Your task to perform on an android device: Clear all items from cart on newegg.com. Search for bose quietcomfort 35 on newegg.com, select the first entry, add it to the cart, then select checkout. Image 0: 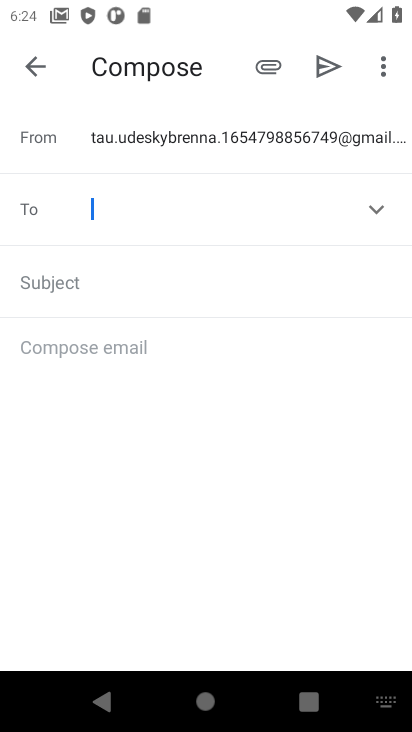
Step 0: press home button
Your task to perform on an android device: Clear all items from cart on newegg.com. Search for bose quietcomfort 35 on newegg.com, select the first entry, add it to the cart, then select checkout. Image 1: 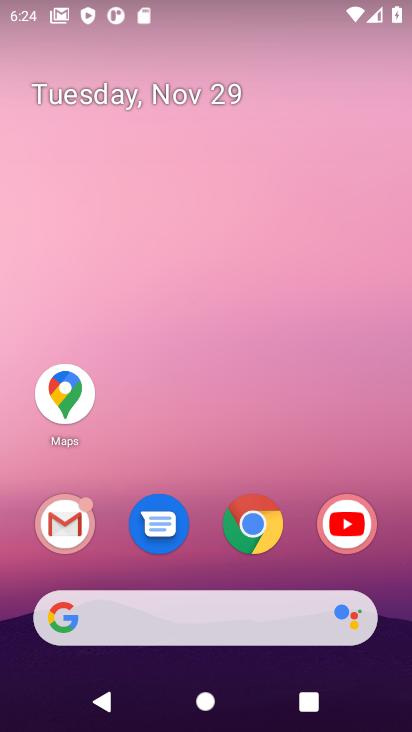
Step 1: click (256, 519)
Your task to perform on an android device: Clear all items from cart on newegg.com. Search for bose quietcomfort 35 on newegg.com, select the first entry, add it to the cart, then select checkout. Image 2: 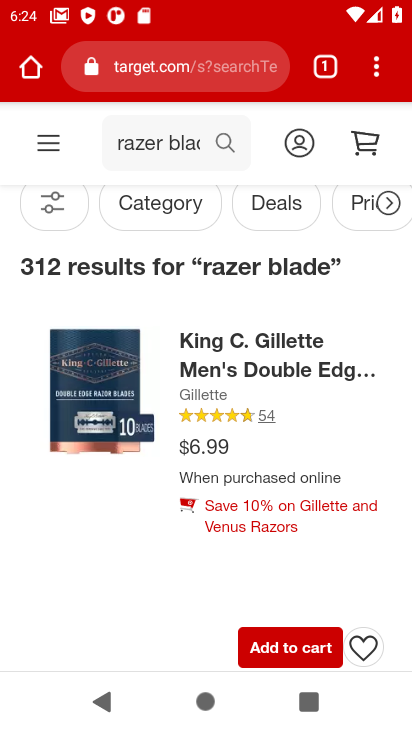
Step 2: click (150, 57)
Your task to perform on an android device: Clear all items from cart on newegg.com. Search for bose quietcomfort 35 on newegg.com, select the first entry, add it to the cart, then select checkout. Image 3: 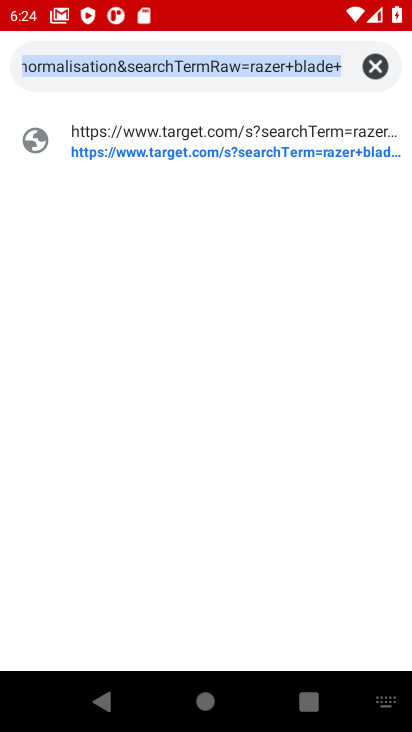
Step 3: type "newegg.com"
Your task to perform on an android device: Clear all items from cart on newegg.com. Search for bose quietcomfort 35 on newegg.com, select the first entry, add it to the cart, then select checkout. Image 4: 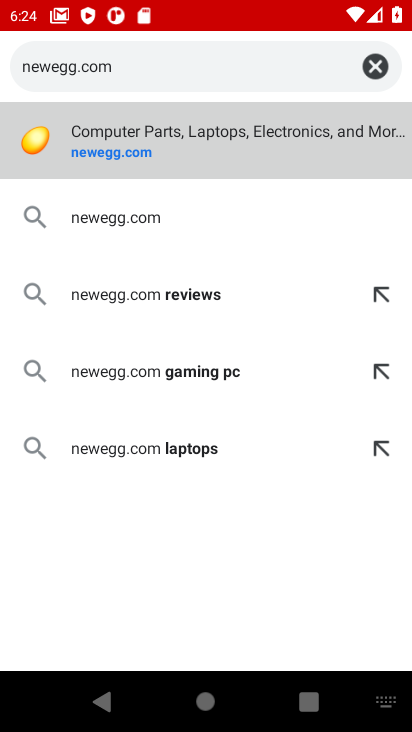
Step 4: click (107, 151)
Your task to perform on an android device: Clear all items from cart on newegg.com. Search for bose quietcomfort 35 on newegg.com, select the first entry, add it to the cart, then select checkout. Image 5: 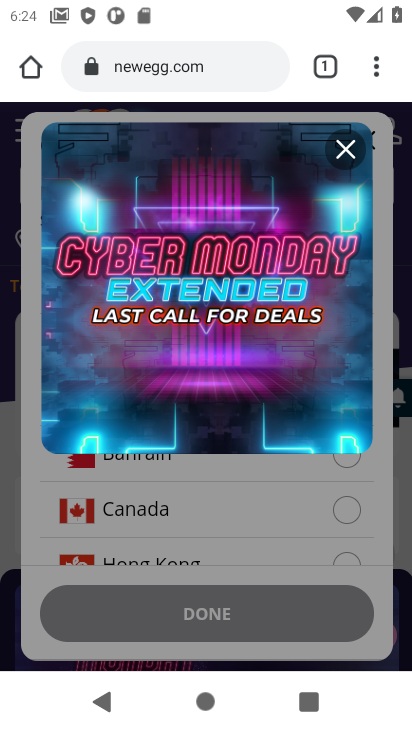
Step 5: click (343, 155)
Your task to perform on an android device: Clear all items from cart on newegg.com. Search for bose quietcomfort 35 on newegg.com, select the first entry, add it to the cart, then select checkout. Image 6: 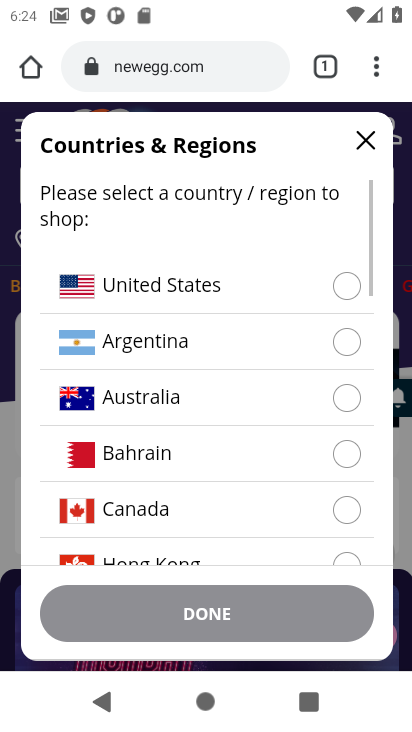
Step 6: click (125, 293)
Your task to perform on an android device: Clear all items from cart on newegg.com. Search for bose quietcomfort 35 on newegg.com, select the first entry, add it to the cart, then select checkout. Image 7: 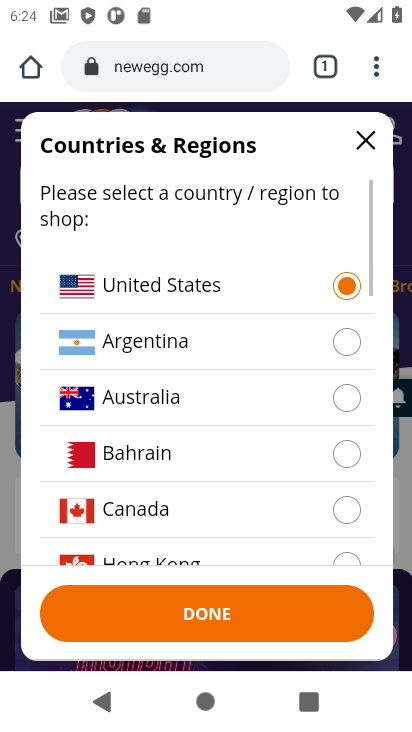
Step 7: click (185, 611)
Your task to perform on an android device: Clear all items from cart on newegg.com. Search for bose quietcomfort 35 on newegg.com, select the first entry, add it to the cart, then select checkout. Image 8: 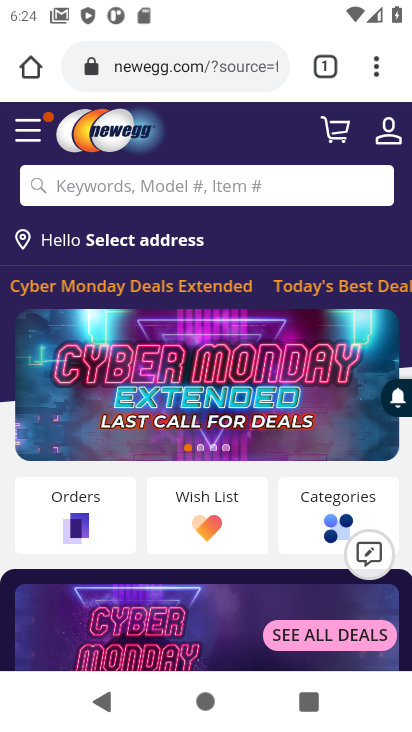
Step 8: click (338, 130)
Your task to perform on an android device: Clear all items from cart on newegg.com. Search for bose quietcomfort 35 on newegg.com, select the first entry, add it to the cart, then select checkout. Image 9: 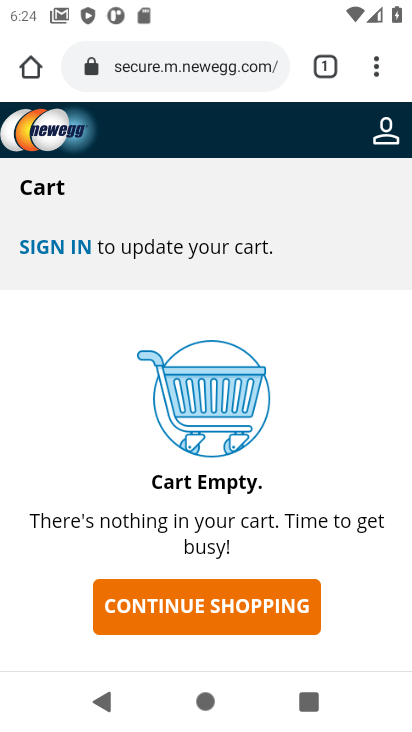
Step 9: click (222, 628)
Your task to perform on an android device: Clear all items from cart on newegg.com. Search for bose quietcomfort 35 on newegg.com, select the first entry, add it to the cart, then select checkout. Image 10: 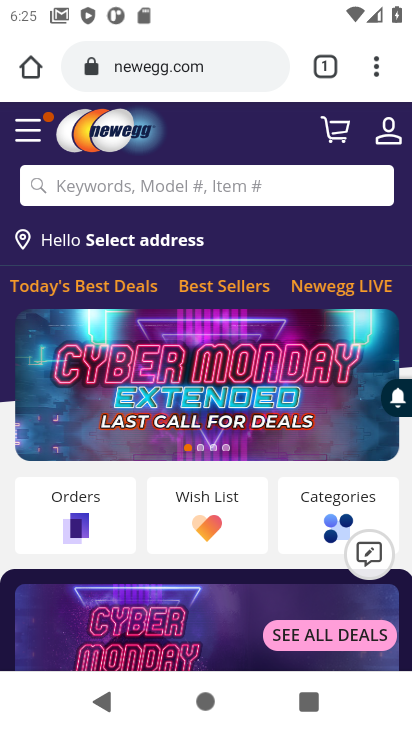
Step 10: click (95, 180)
Your task to perform on an android device: Clear all items from cart on newegg.com. Search for bose quietcomfort 35 on newegg.com, select the first entry, add it to the cart, then select checkout. Image 11: 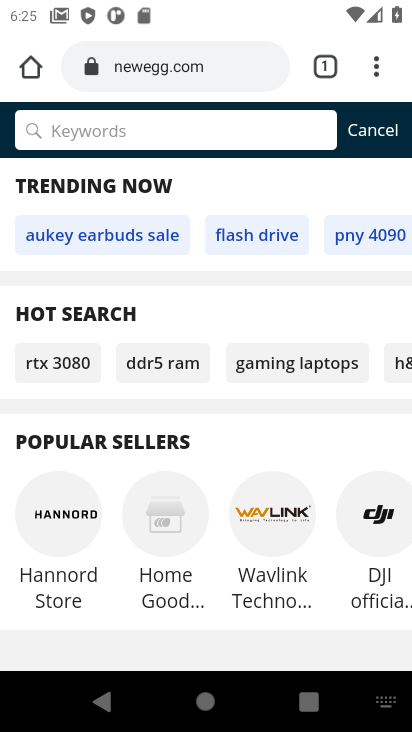
Step 11: type " bose quietcomfort 35"
Your task to perform on an android device: Clear all items from cart on newegg.com. Search for bose quietcomfort 35 on newegg.com, select the first entry, add it to the cart, then select checkout. Image 12: 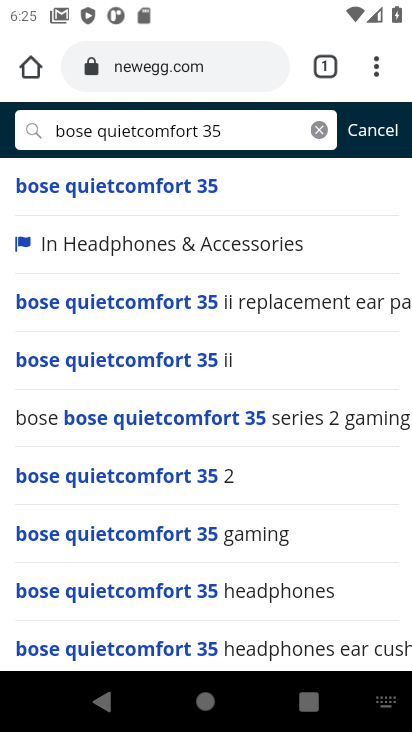
Step 12: click (92, 178)
Your task to perform on an android device: Clear all items from cart on newegg.com. Search for bose quietcomfort 35 on newegg.com, select the first entry, add it to the cart, then select checkout. Image 13: 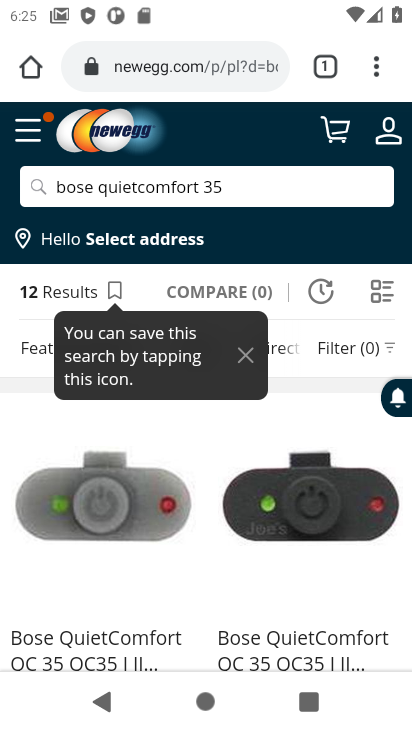
Step 13: drag from (102, 558) to (98, 366)
Your task to perform on an android device: Clear all items from cart on newegg.com. Search for bose quietcomfort 35 on newegg.com, select the first entry, add it to the cart, then select checkout. Image 14: 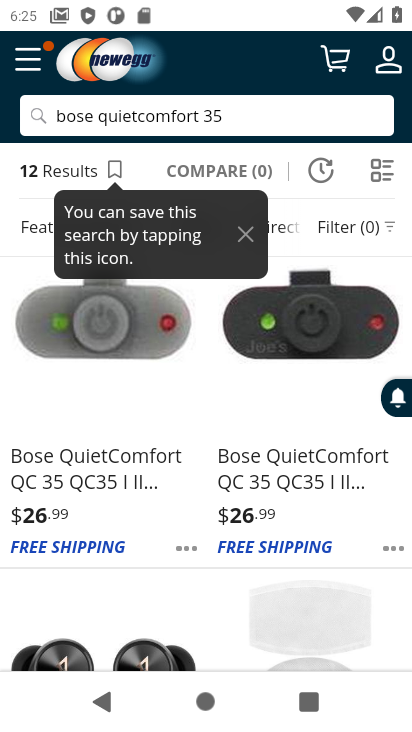
Step 14: click (99, 373)
Your task to perform on an android device: Clear all items from cart on newegg.com. Search for bose quietcomfort 35 on newegg.com, select the first entry, add it to the cart, then select checkout. Image 15: 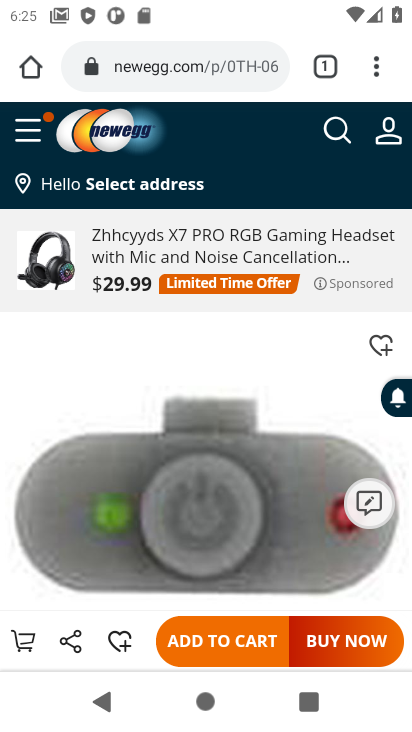
Step 15: click (227, 641)
Your task to perform on an android device: Clear all items from cart on newegg.com. Search for bose quietcomfort 35 on newegg.com, select the first entry, add it to the cart, then select checkout. Image 16: 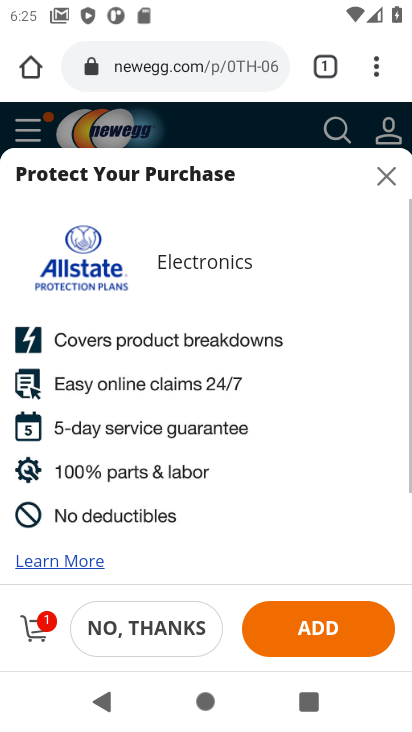
Step 16: click (35, 632)
Your task to perform on an android device: Clear all items from cart on newegg.com. Search for bose quietcomfort 35 on newegg.com, select the first entry, add it to the cart, then select checkout. Image 17: 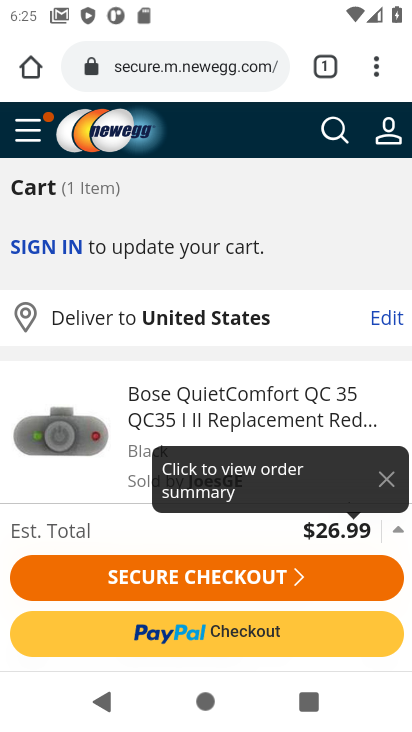
Step 17: click (239, 575)
Your task to perform on an android device: Clear all items from cart on newegg.com. Search for bose quietcomfort 35 on newegg.com, select the first entry, add it to the cart, then select checkout. Image 18: 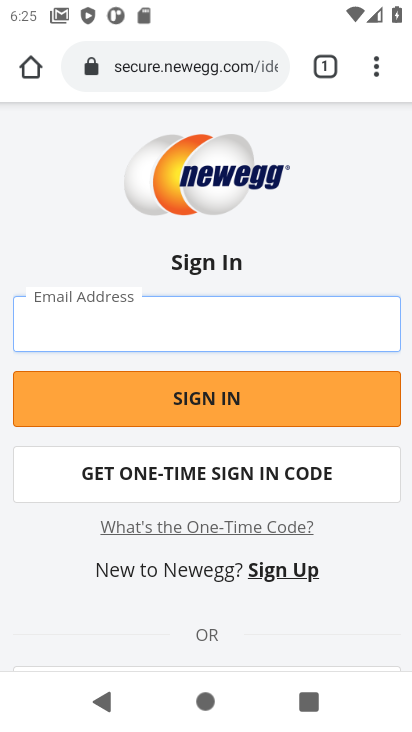
Step 18: task complete